Your task to perform on an android device: choose inbox layout in the gmail app Image 0: 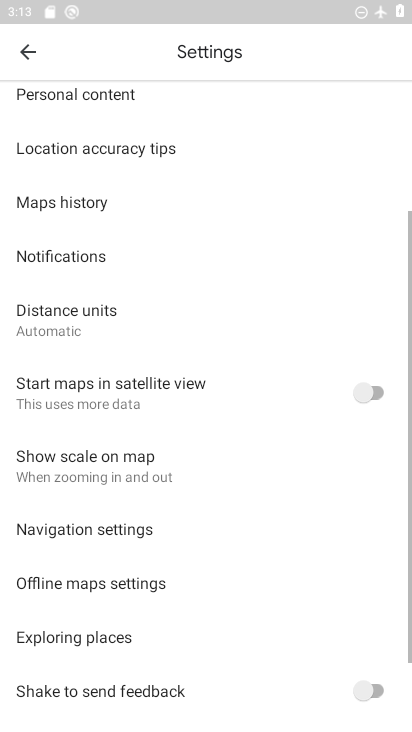
Step 0: press home button
Your task to perform on an android device: choose inbox layout in the gmail app Image 1: 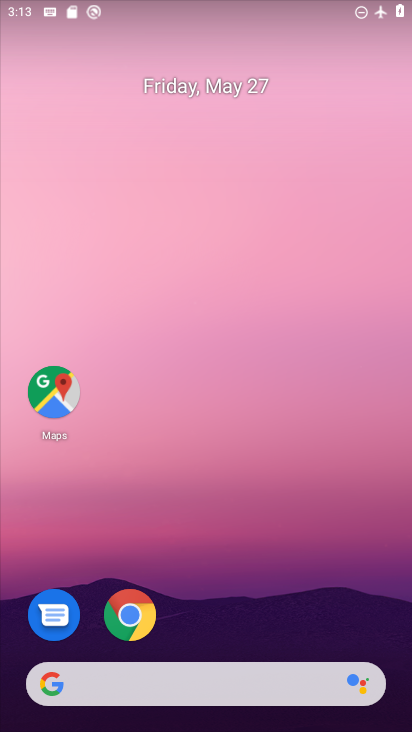
Step 1: drag from (303, 494) to (182, 90)
Your task to perform on an android device: choose inbox layout in the gmail app Image 2: 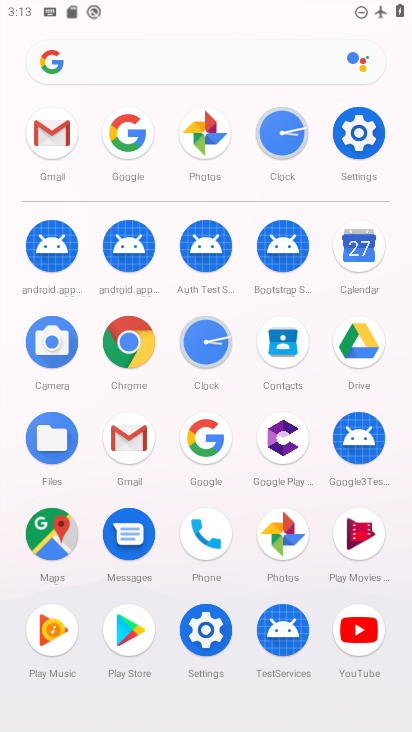
Step 2: click (51, 133)
Your task to perform on an android device: choose inbox layout in the gmail app Image 3: 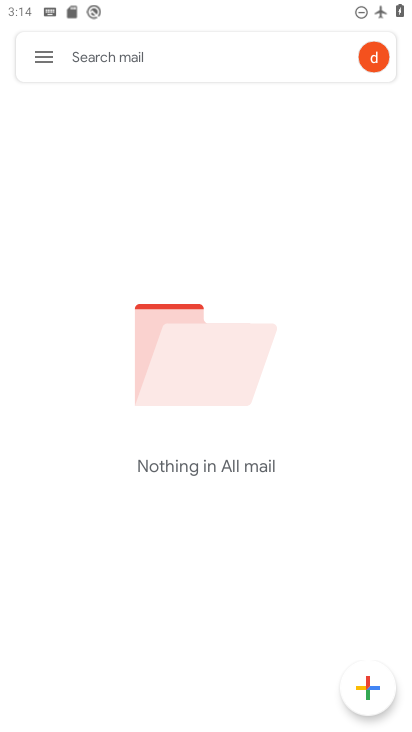
Step 3: click (40, 55)
Your task to perform on an android device: choose inbox layout in the gmail app Image 4: 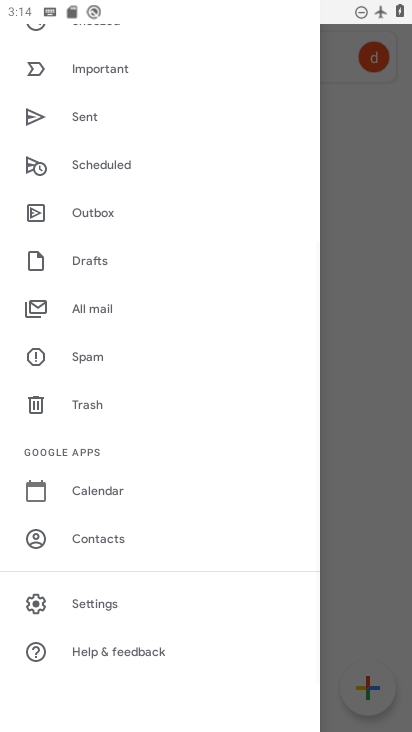
Step 4: click (139, 603)
Your task to perform on an android device: choose inbox layout in the gmail app Image 5: 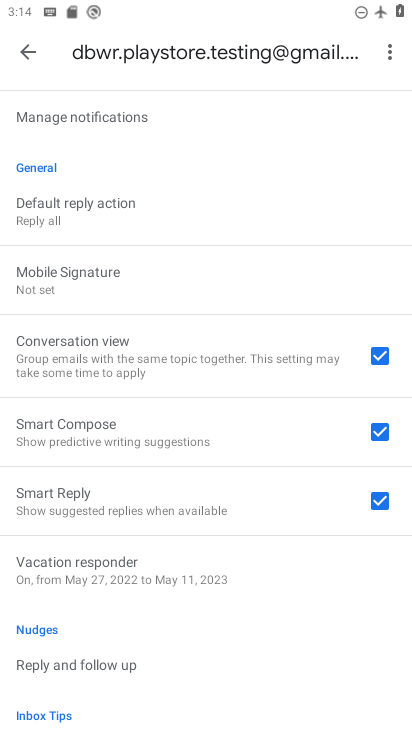
Step 5: drag from (173, 184) to (154, 680)
Your task to perform on an android device: choose inbox layout in the gmail app Image 6: 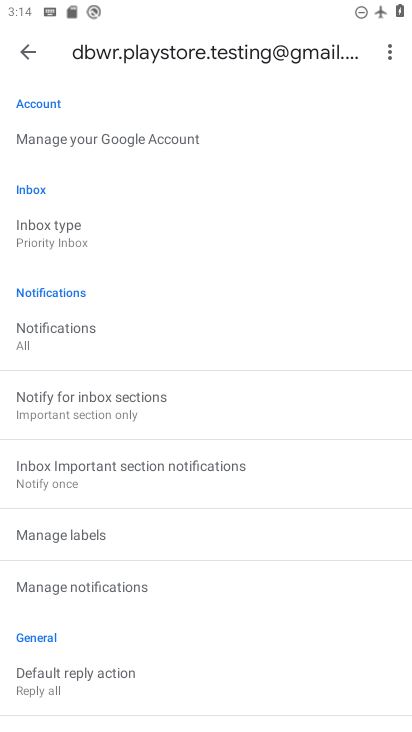
Step 6: click (118, 229)
Your task to perform on an android device: choose inbox layout in the gmail app Image 7: 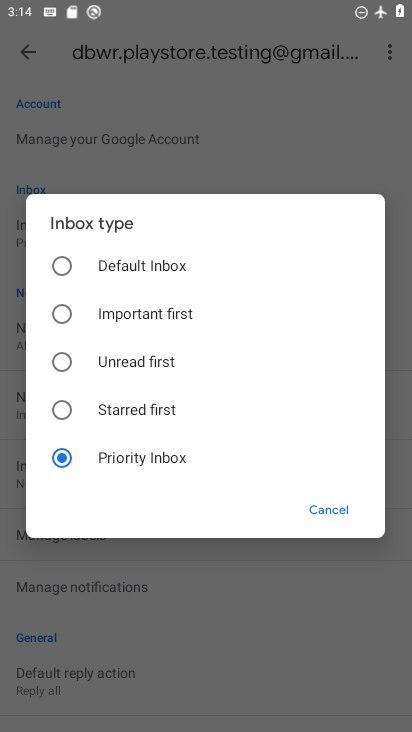
Step 7: click (155, 342)
Your task to perform on an android device: choose inbox layout in the gmail app Image 8: 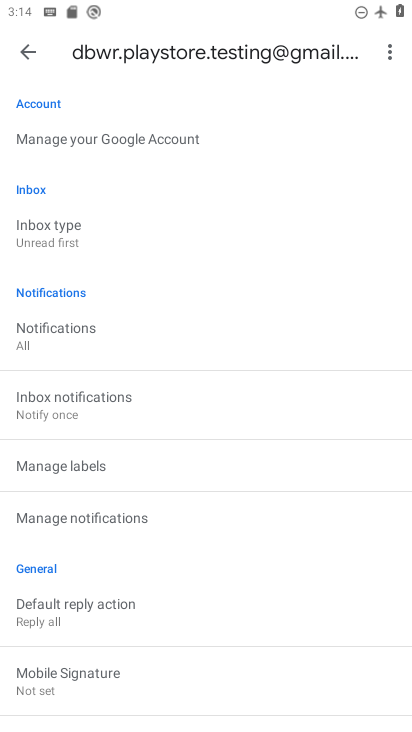
Step 8: task complete